Your task to perform on an android device: toggle notification dots Image 0: 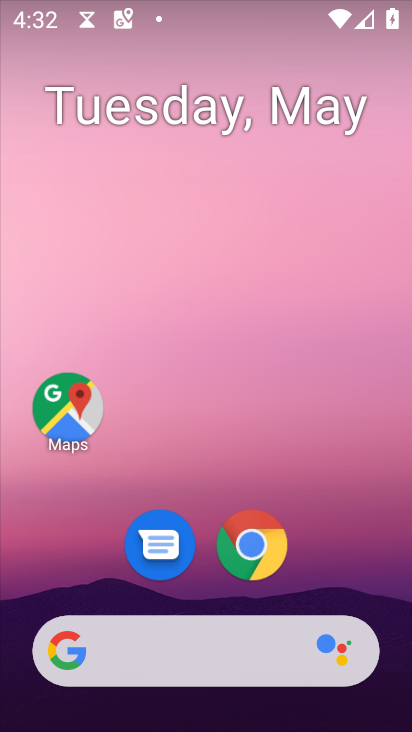
Step 0: drag from (340, 562) to (324, 151)
Your task to perform on an android device: toggle notification dots Image 1: 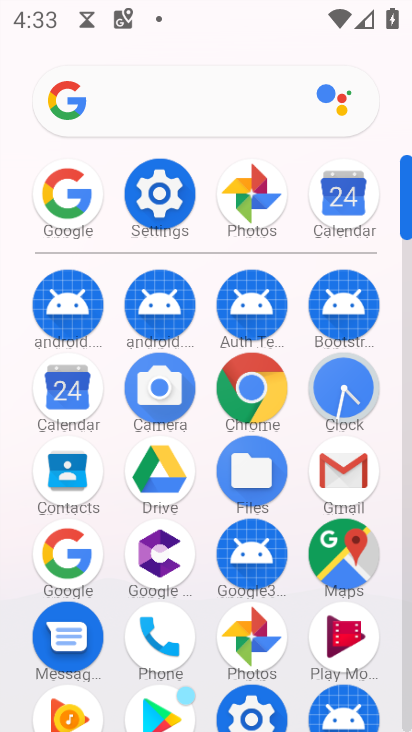
Step 1: click (158, 193)
Your task to perform on an android device: toggle notification dots Image 2: 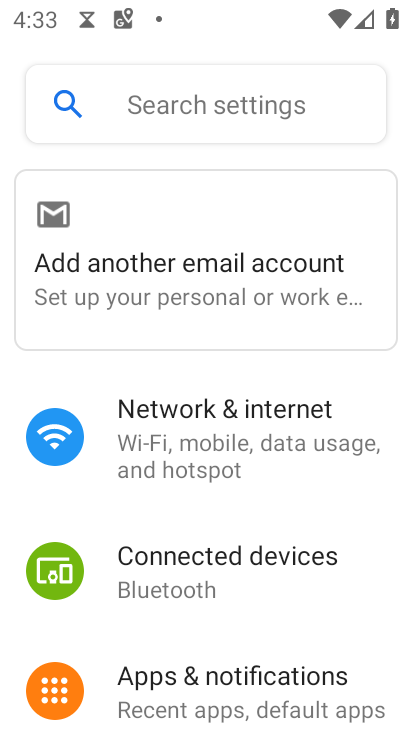
Step 2: drag from (201, 596) to (201, 452)
Your task to perform on an android device: toggle notification dots Image 3: 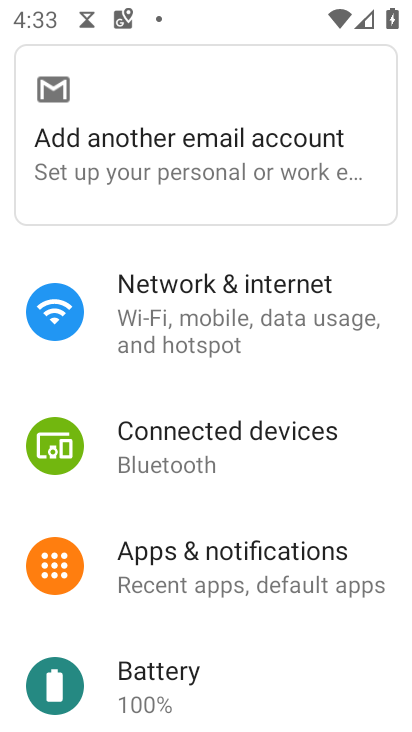
Step 3: click (223, 548)
Your task to perform on an android device: toggle notification dots Image 4: 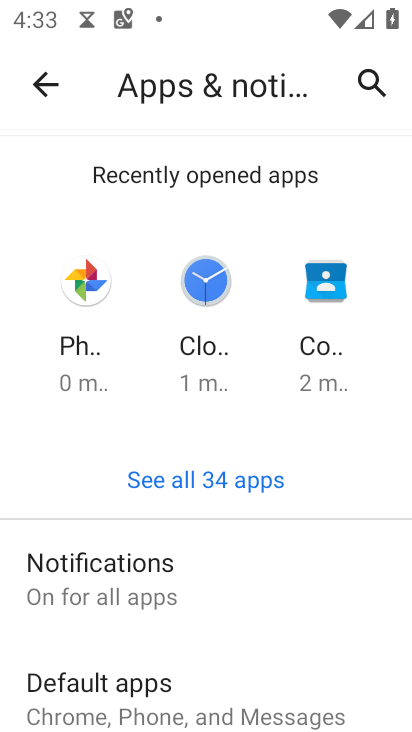
Step 4: click (143, 565)
Your task to perform on an android device: toggle notification dots Image 5: 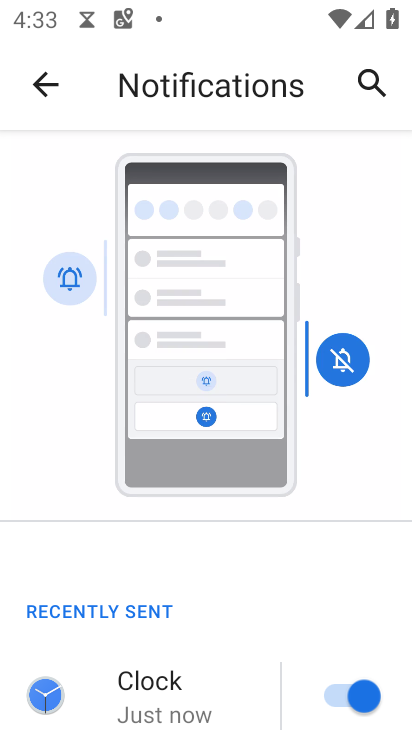
Step 5: drag from (219, 640) to (277, 311)
Your task to perform on an android device: toggle notification dots Image 6: 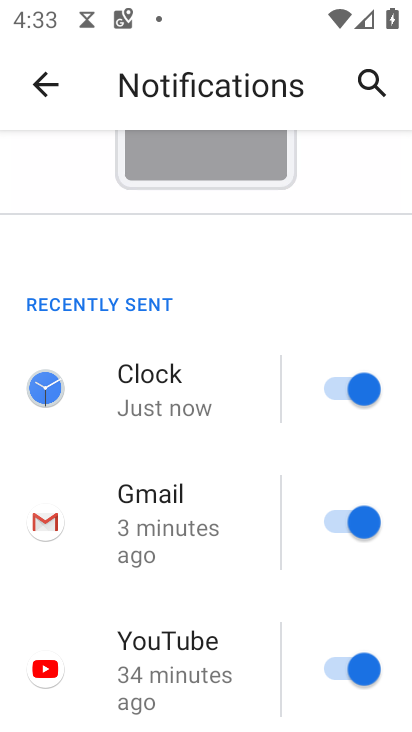
Step 6: drag from (211, 575) to (233, 371)
Your task to perform on an android device: toggle notification dots Image 7: 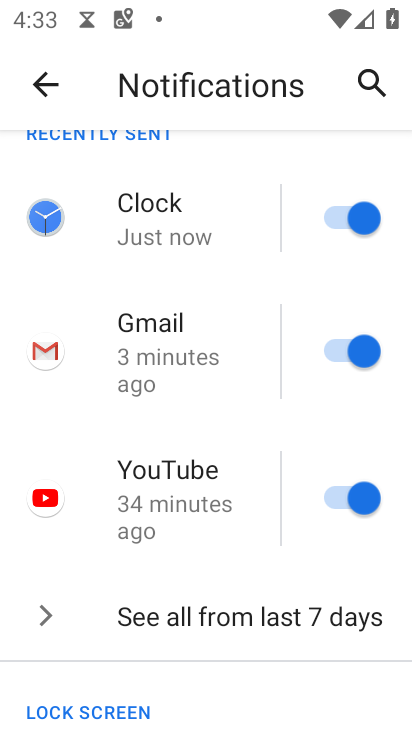
Step 7: drag from (188, 682) to (209, 493)
Your task to perform on an android device: toggle notification dots Image 8: 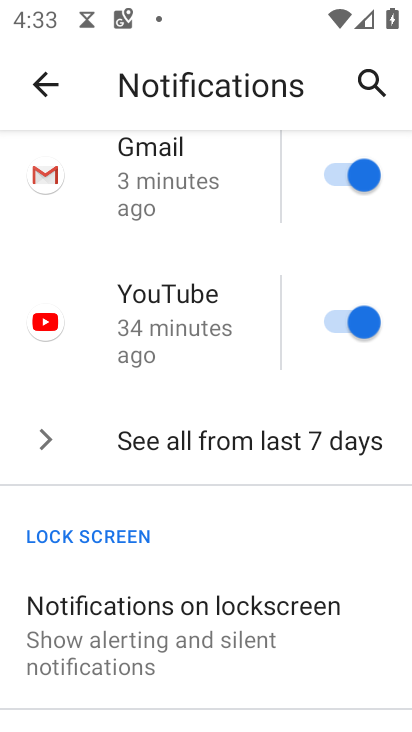
Step 8: drag from (208, 683) to (247, 492)
Your task to perform on an android device: toggle notification dots Image 9: 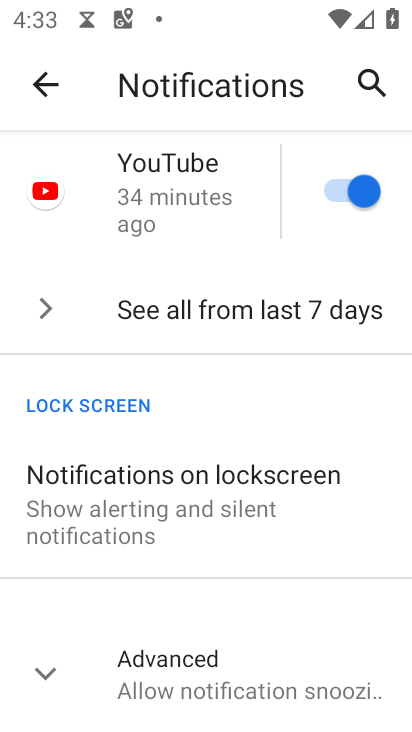
Step 9: click (217, 674)
Your task to perform on an android device: toggle notification dots Image 10: 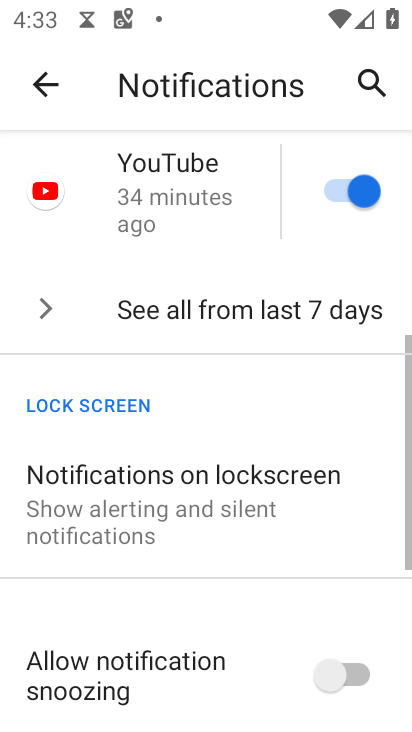
Step 10: drag from (223, 593) to (330, 378)
Your task to perform on an android device: toggle notification dots Image 11: 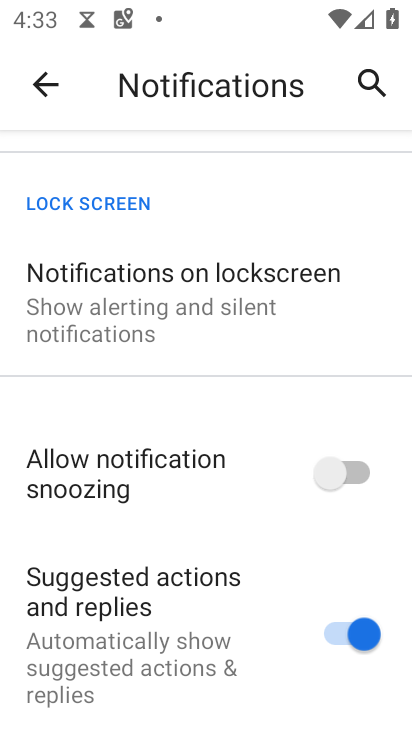
Step 11: drag from (209, 505) to (290, 366)
Your task to perform on an android device: toggle notification dots Image 12: 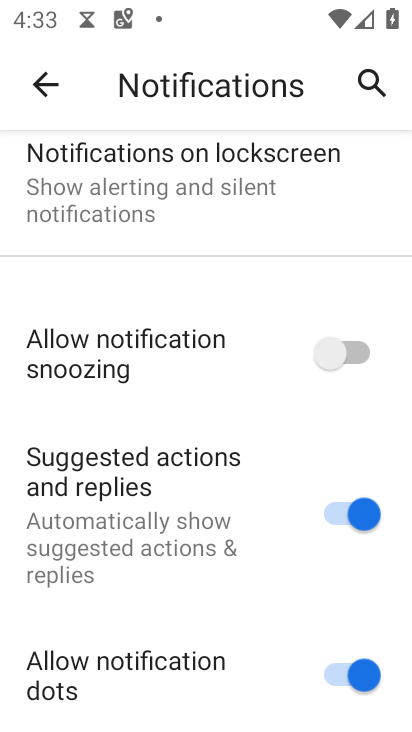
Step 12: drag from (157, 600) to (206, 396)
Your task to perform on an android device: toggle notification dots Image 13: 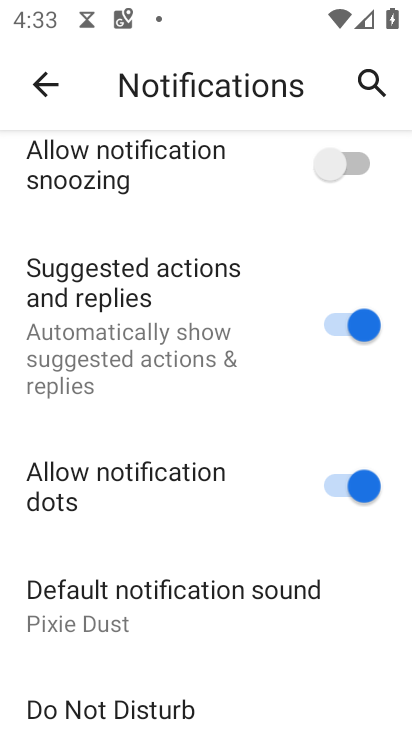
Step 13: click (363, 484)
Your task to perform on an android device: toggle notification dots Image 14: 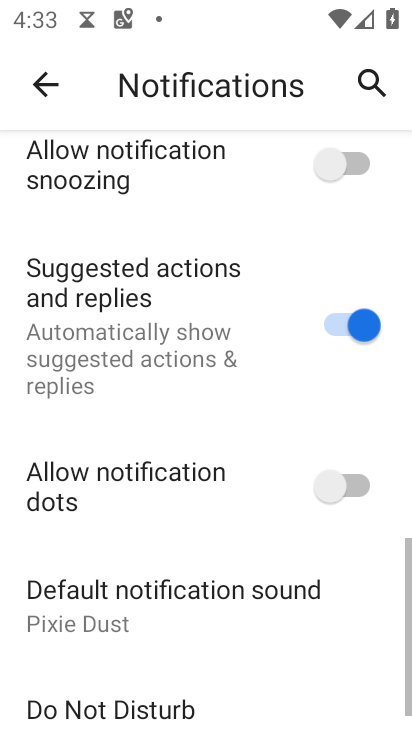
Step 14: task complete